Your task to perform on an android device: Open Amazon Image 0: 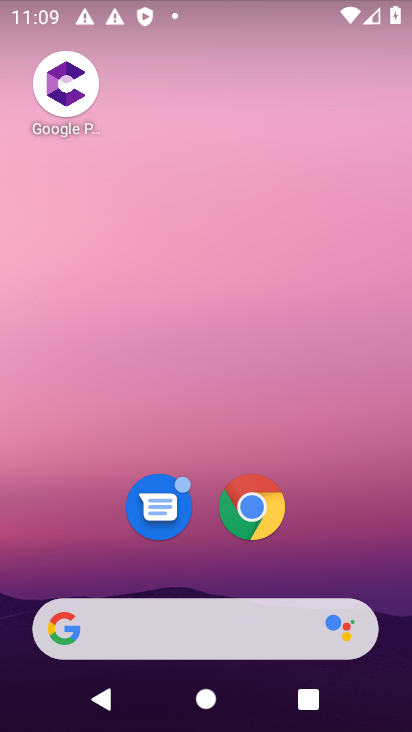
Step 0: click (259, 509)
Your task to perform on an android device: Open Amazon Image 1: 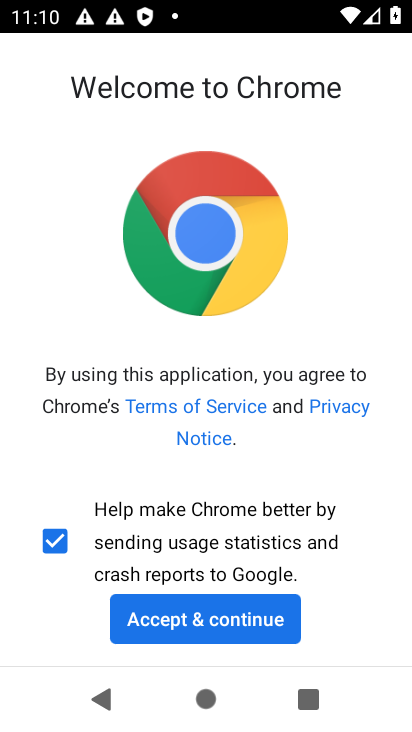
Step 1: click (246, 614)
Your task to perform on an android device: Open Amazon Image 2: 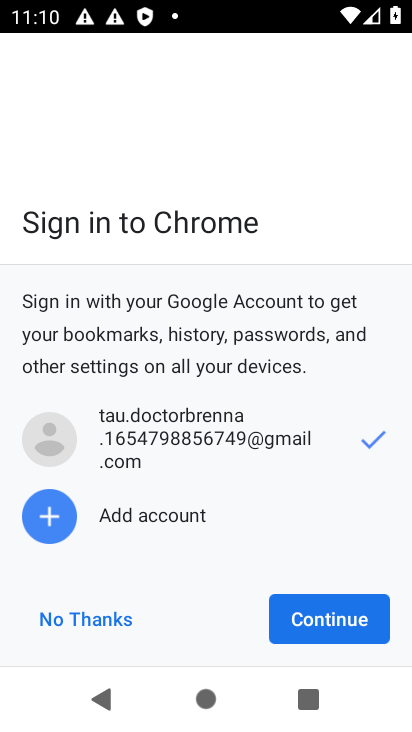
Step 2: click (334, 619)
Your task to perform on an android device: Open Amazon Image 3: 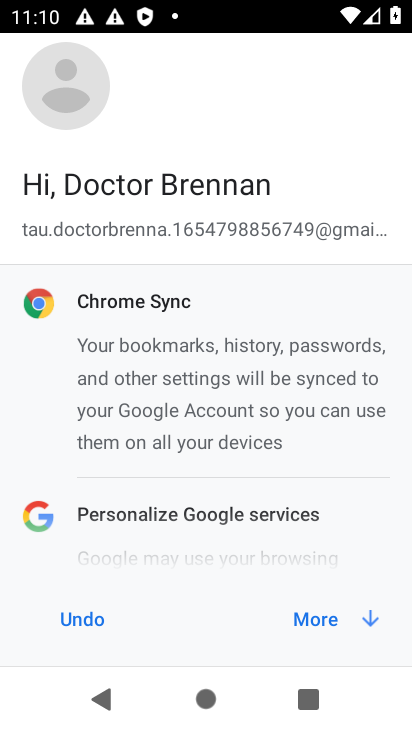
Step 3: click (374, 622)
Your task to perform on an android device: Open Amazon Image 4: 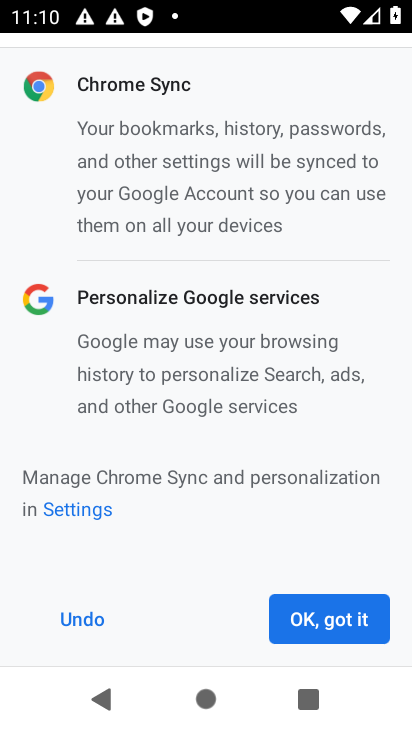
Step 4: click (349, 617)
Your task to perform on an android device: Open Amazon Image 5: 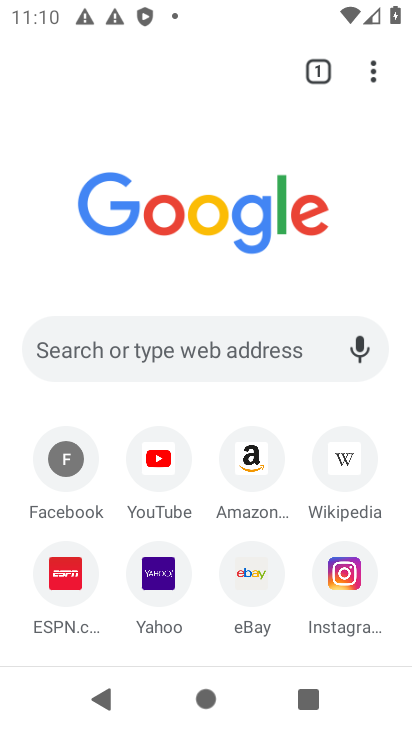
Step 5: click (248, 469)
Your task to perform on an android device: Open Amazon Image 6: 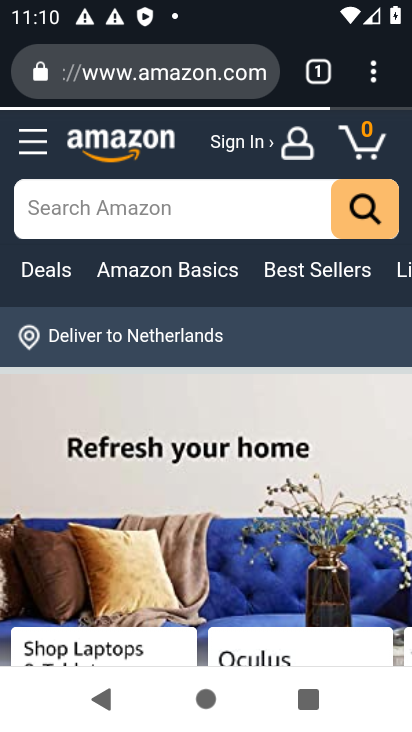
Step 6: task complete